Your task to perform on an android device: turn off translation in the chrome app Image 0: 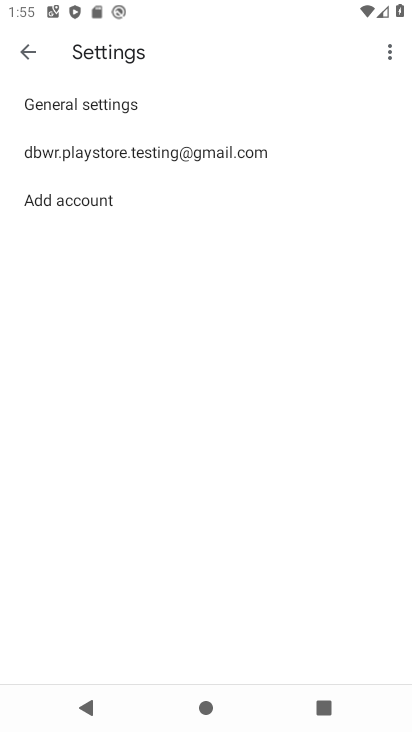
Step 0: press home button
Your task to perform on an android device: turn off translation in the chrome app Image 1: 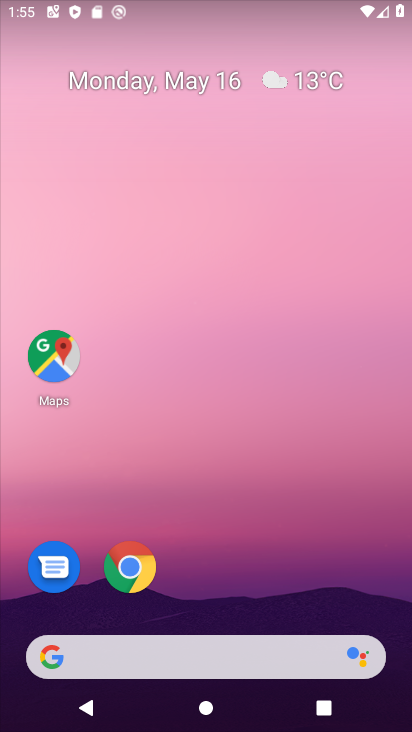
Step 1: click (120, 572)
Your task to perform on an android device: turn off translation in the chrome app Image 2: 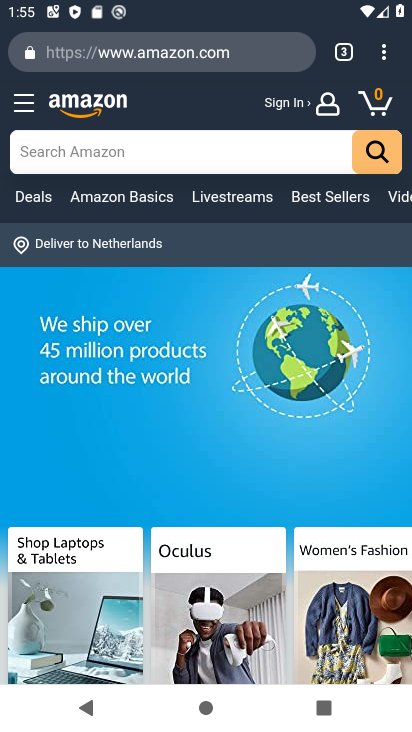
Step 2: click (387, 56)
Your task to perform on an android device: turn off translation in the chrome app Image 3: 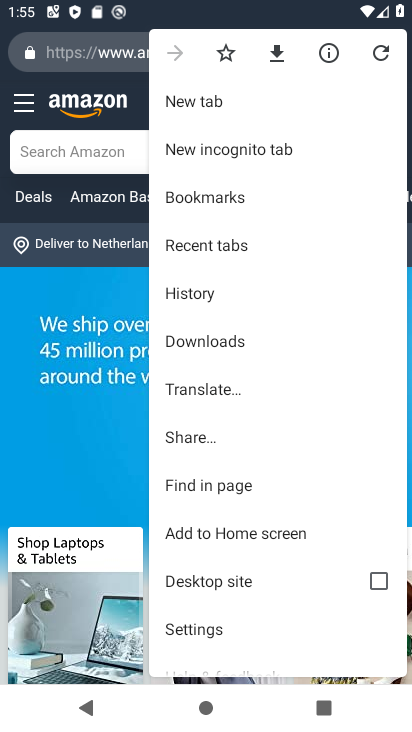
Step 3: click (210, 624)
Your task to perform on an android device: turn off translation in the chrome app Image 4: 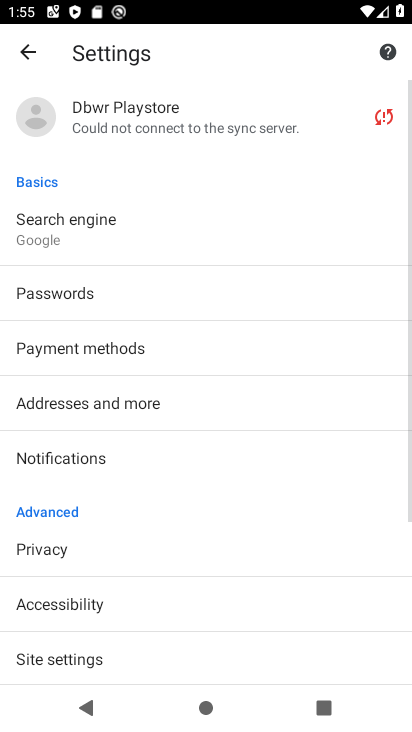
Step 4: drag from (233, 512) to (204, 178)
Your task to perform on an android device: turn off translation in the chrome app Image 5: 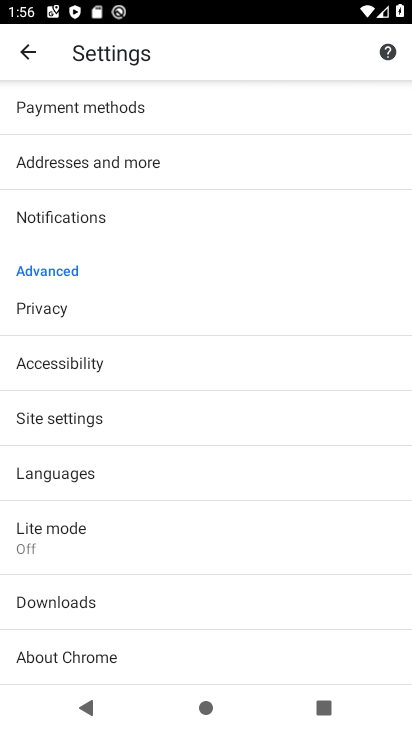
Step 5: click (162, 314)
Your task to perform on an android device: turn off translation in the chrome app Image 6: 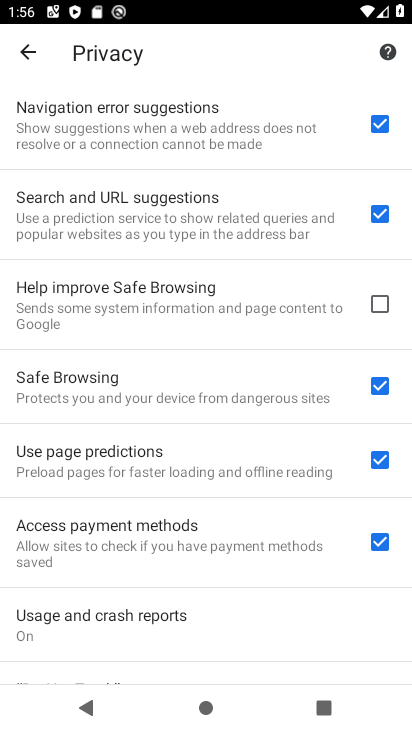
Step 6: click (29, 47)
Your task to perform on an android device: turn off translation in the chrome app Image 7: 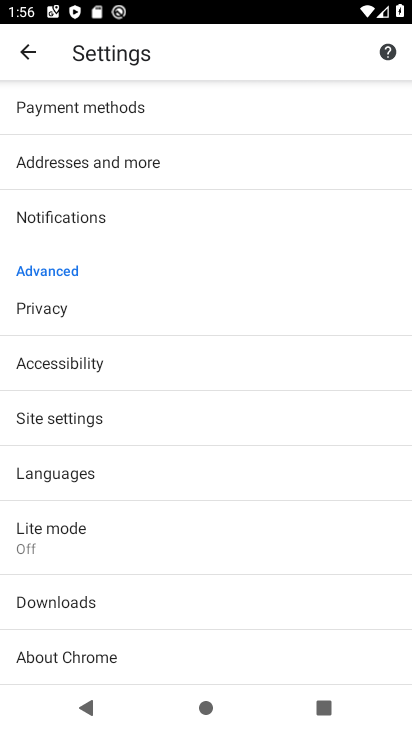
Step 7: click (26, 52)
Your task to perform on an android device: turn off translation in the chrome app Image 8: 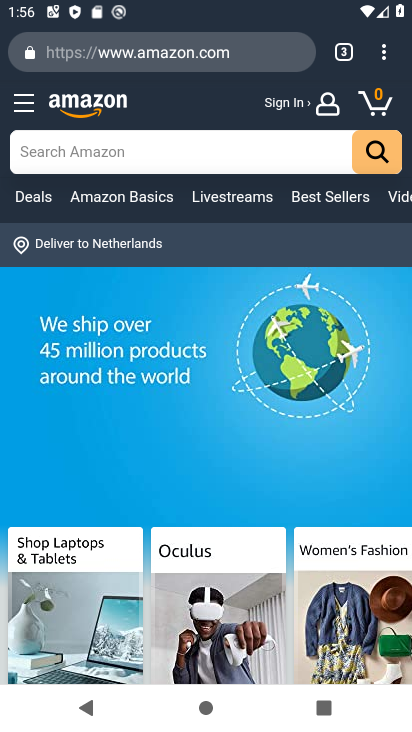
Step 8: click (382, 49)
Your task to perform on an android device: turn off translation in the chrome app Image 9: 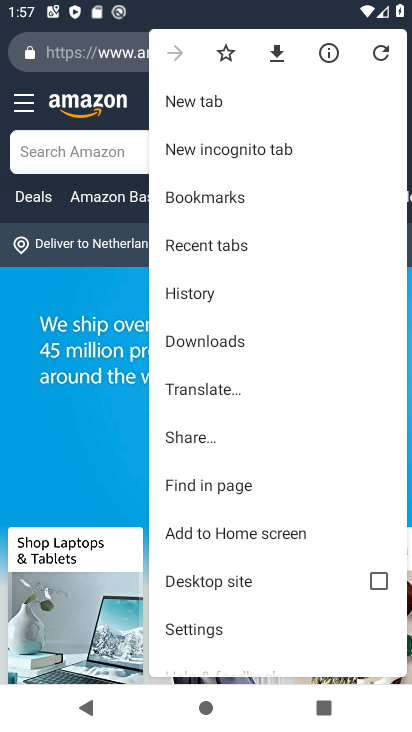
Step 9: click (204, 617)
Your task to perform on an android device: turn off translation in the chrome app Image 10: 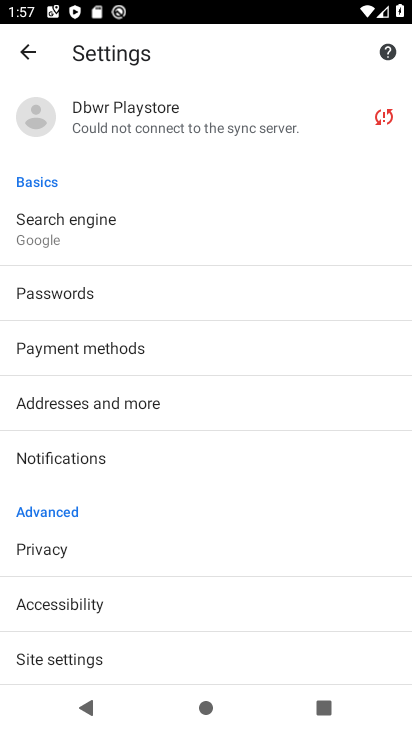
Step 10: drag from (209, 523) to (154, 185)
Your task to perform on an android device: turn off translation in the chrome app Image 11: 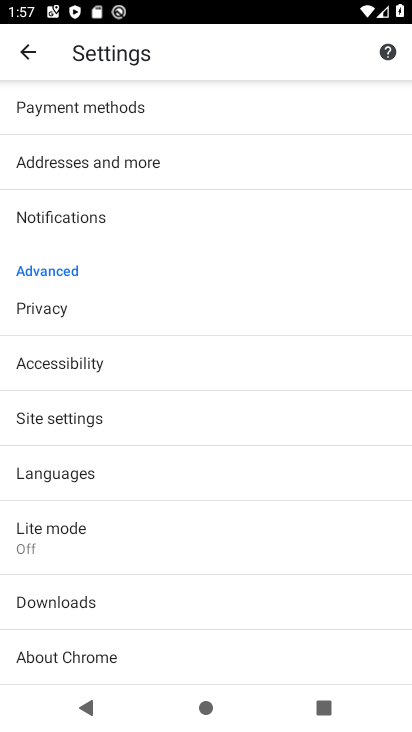
Step 11: click (60, 468)
Your task to perform on an android device: turn off translation in the chrome app Image 12: 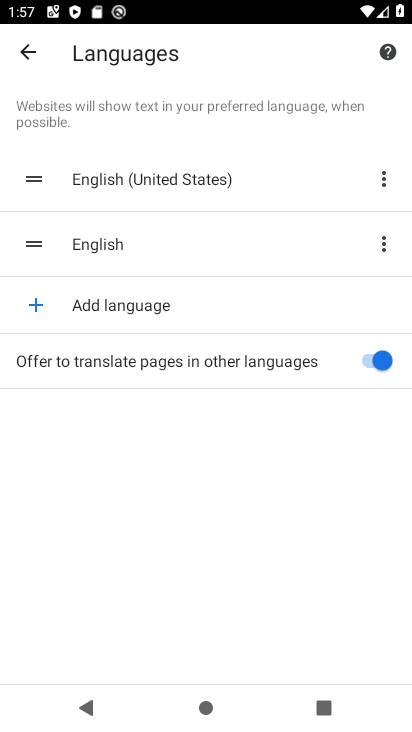
Step 12: click (384, 360)
Your task to perform on an android device: turn off translation in the chrome app Image 13: 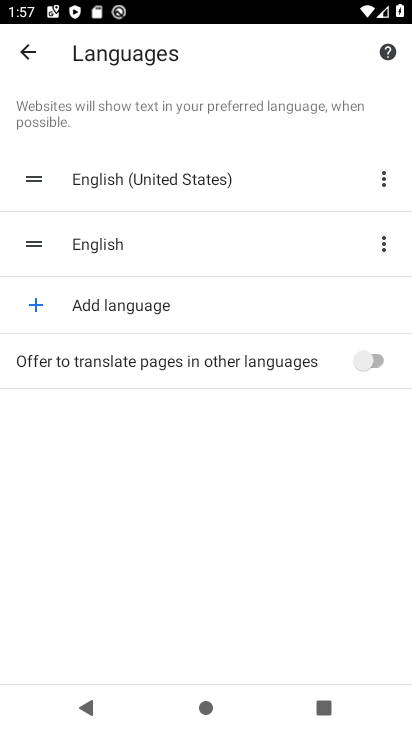
Step 13: task complete